Your task to perform on an android device: Go to ESPN.com Image 0: 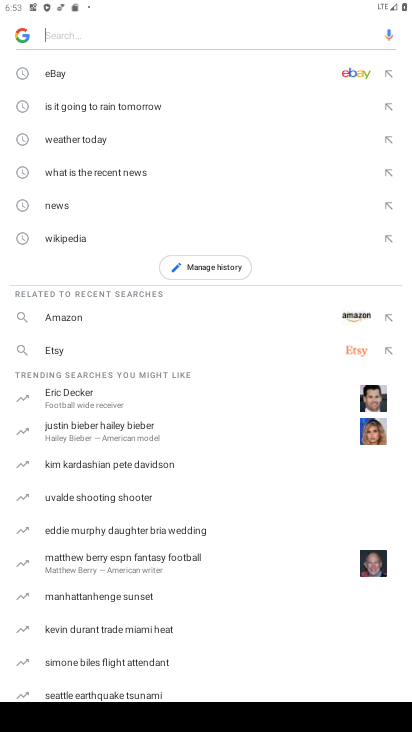
Step 0: press home button
Your task to perform on an android device: Go to ESPN.com Image 1: 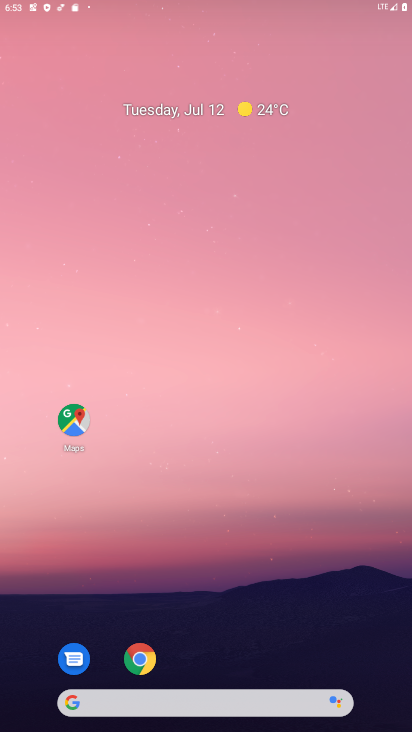
Step 1: drag from (323, 613) to (258, 25)
Your task to perform on an android device: Go to ESPN.com Image 2: 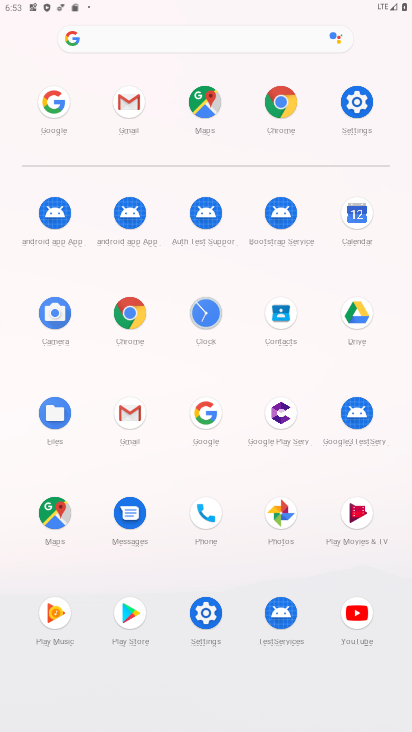
Step 2: click (212, 411)
Your task to perform on an android device: Go to ESPN.com Image 3: 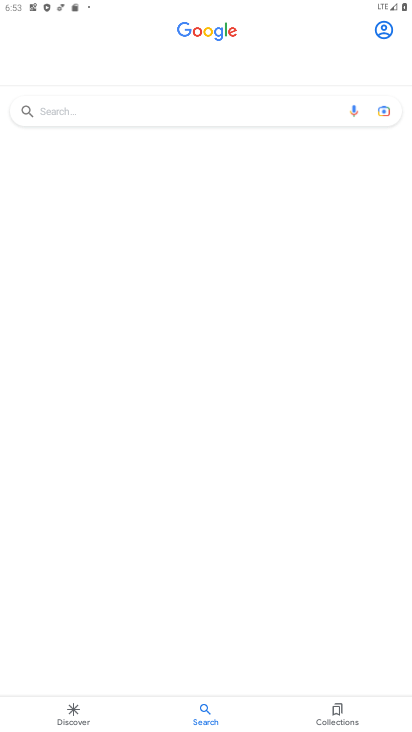
Step 3: click (100, 110)
Your task to perform on an android device: Go to ESPN.com Image 4: 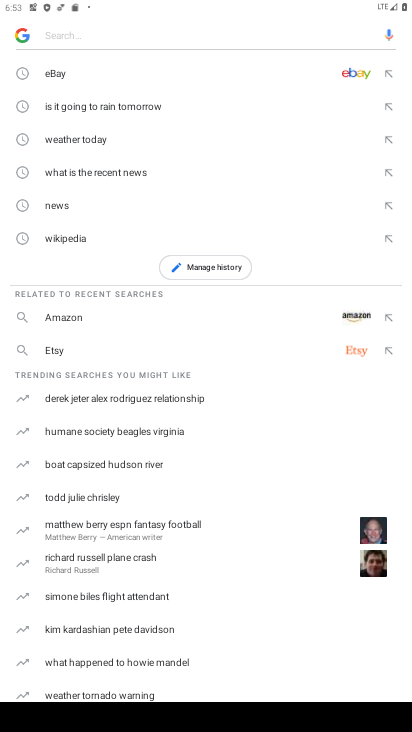
Step 4: type "espn.com"
Your task to perform on an android device: Go to ESPN.com Image 5: 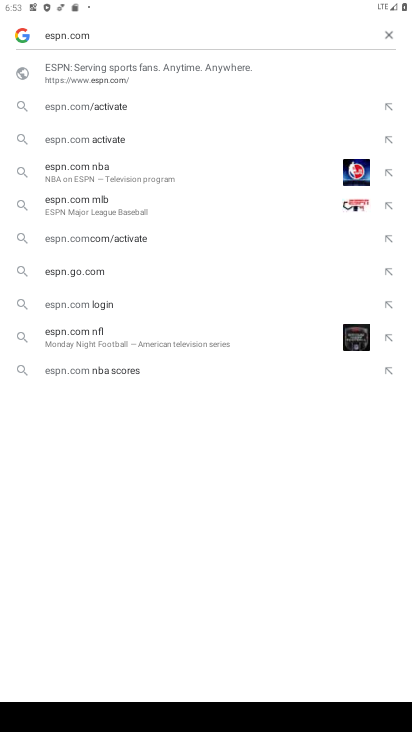
Step 5: click (53, 80)
Your task to perform on an android device: Go to ESPN.com Image 6: 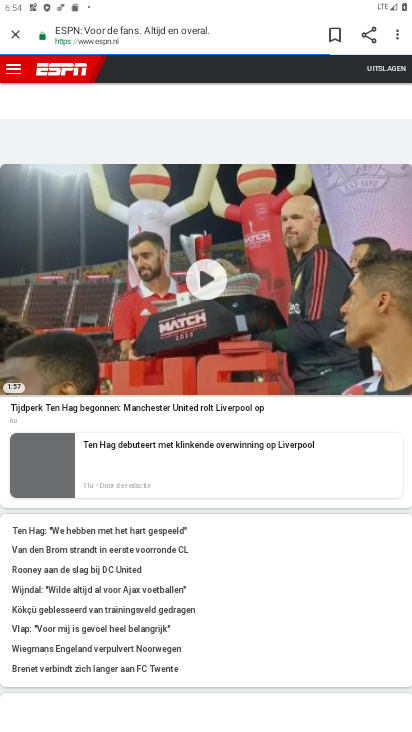
Step 6: task complete